Your task to perform on an android device: set the timer Image 0: 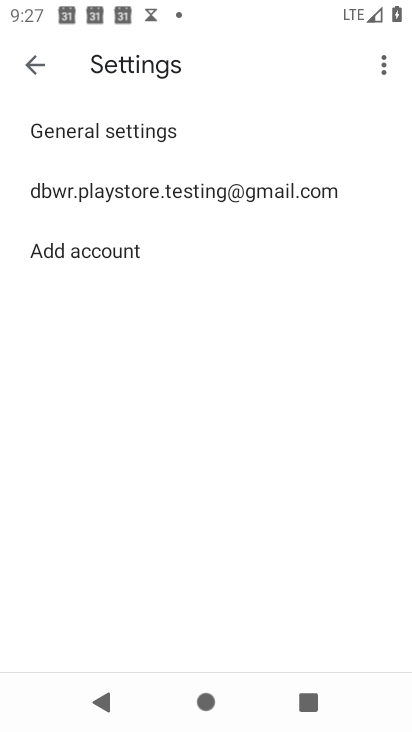
Step 0: press home button
Your task to perform on an android device: set the timer Image 1: 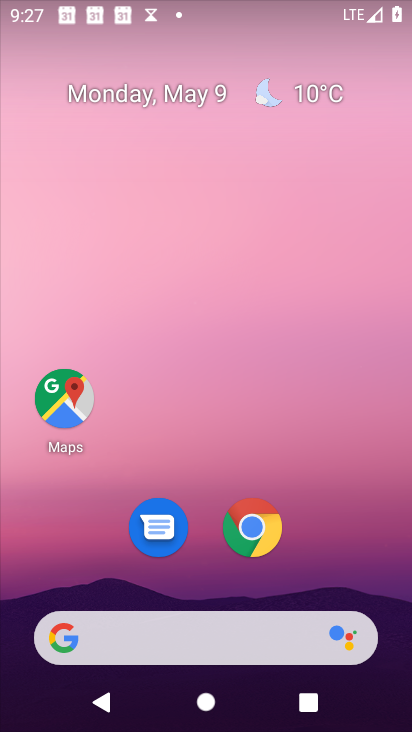
Step 1: drag from (206, 591) to (291, 11)
Your task to perform on an android device: set the timer Image 2: 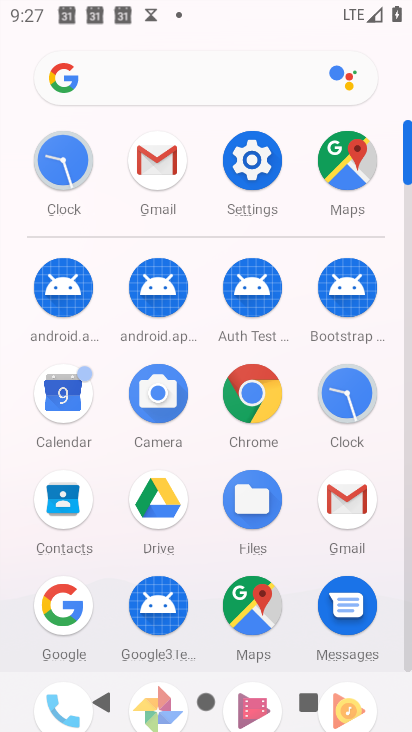
Step 2: click (348, 415)
Your task to perform on an android device: set the timer Image 3: 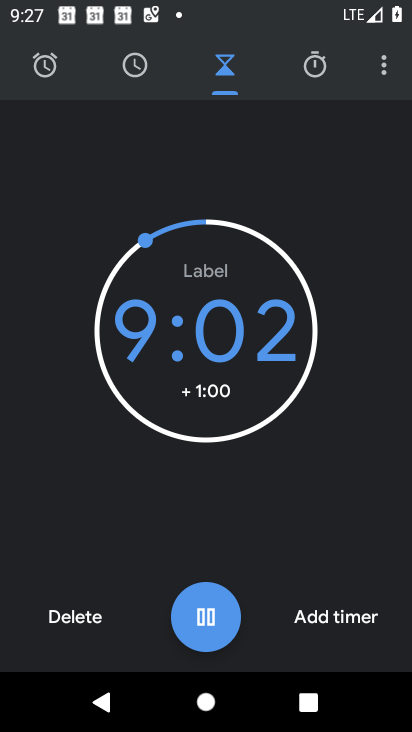
Step 3: click (81, 615)
Your task to perform on an android device: set the timer Image 4: 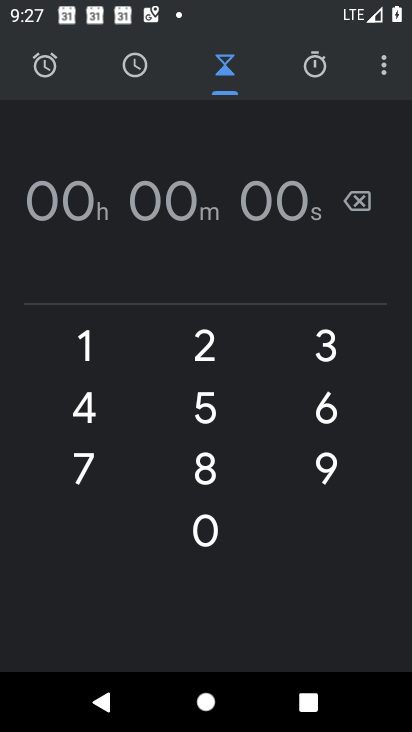
Step 4: click (207, 408)
Your task to perform on an android device: set the timer Image 5: 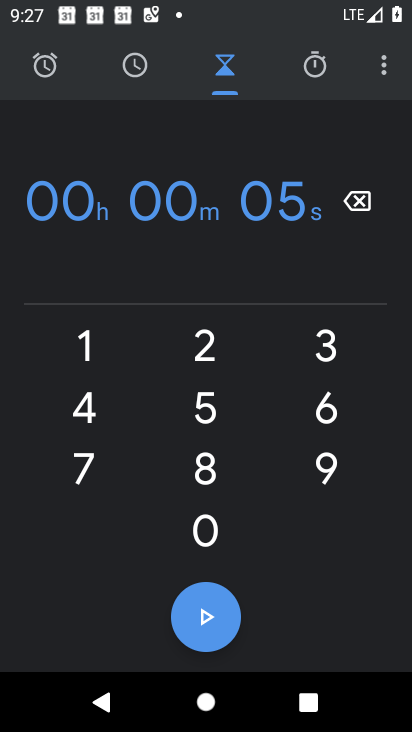
Step 5: click (338, 413)
Your task to perform on an android device: set the timer Image 6: 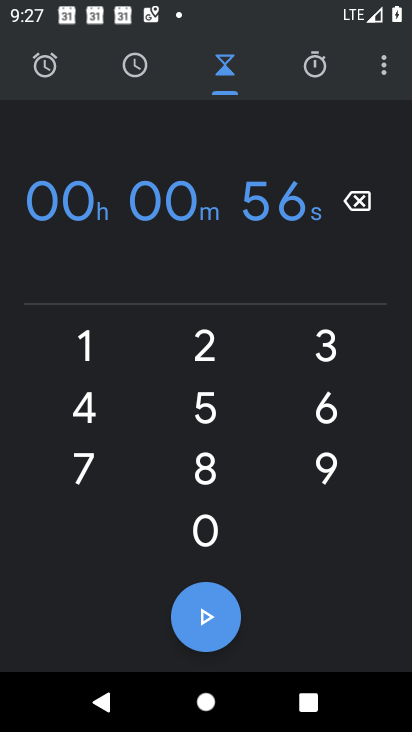
Step 6: click (113, 343)
Your task to perform on an android device: set the timer Image 7: 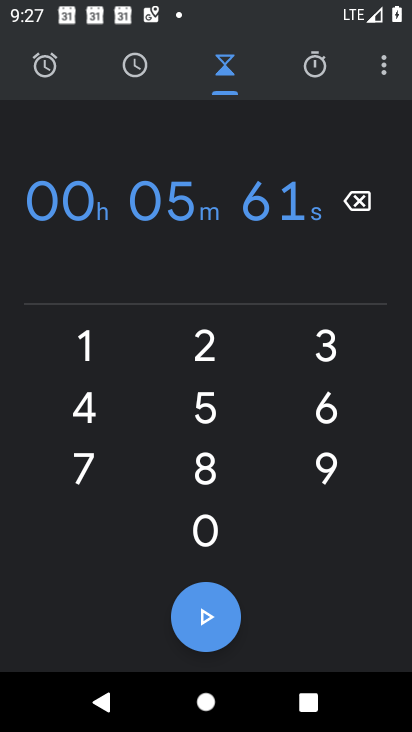
Step 7: click (202, 626)
Your task to perform on an android device: set the timer Image 8: 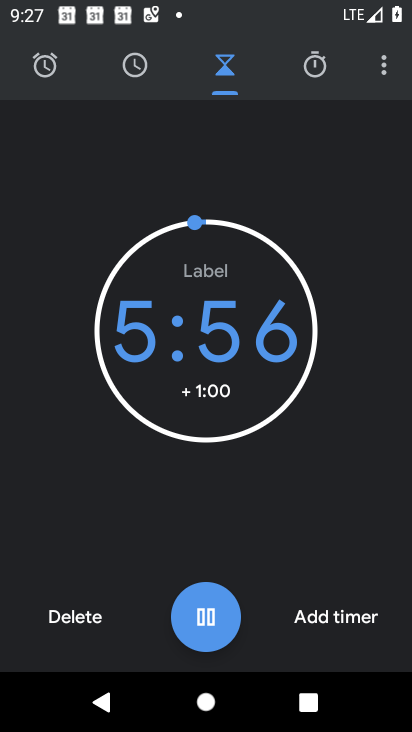
Step 8: task complete